Your task to perform on an android device: Search for sushi restaurants on Maps Image 0: 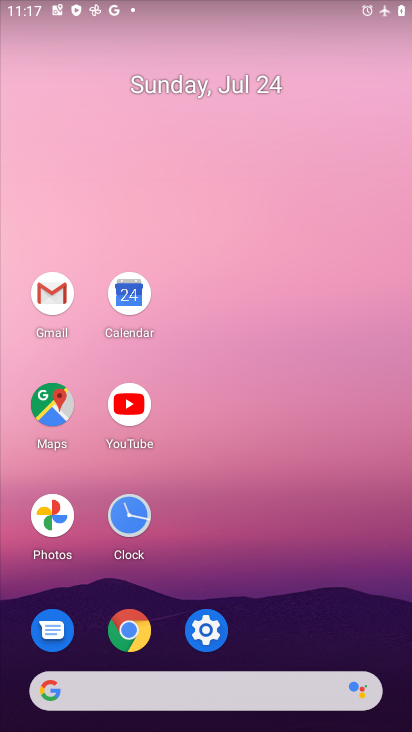
Step 0: click (51, 402)
Your task to perform on an android device: Search for sushi restaurants on Maps Image 1: 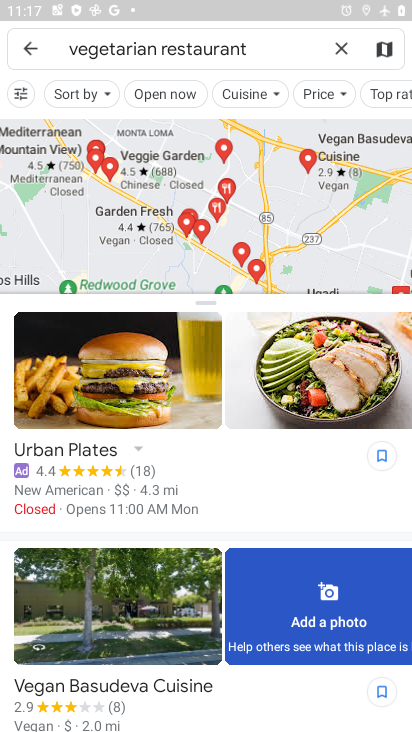
Step 1: click (339, 43)
Your task to perform on an android device: Search for sushi restaurants on Maps Image 2: 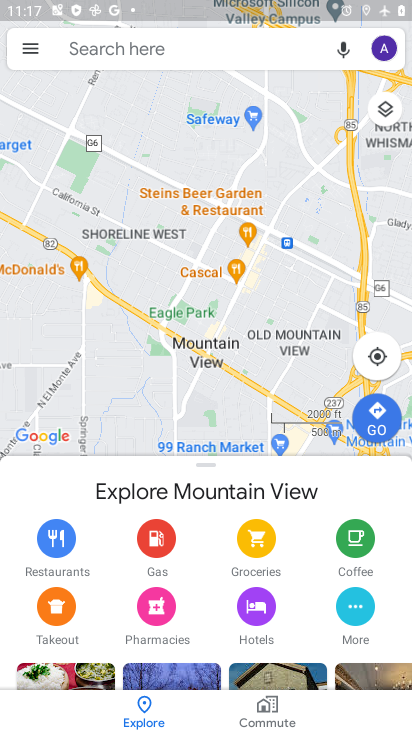
Step 2: click (194, 47)
Your task to perform on an android device: Search for sushi restaurants on Maps Image 3: 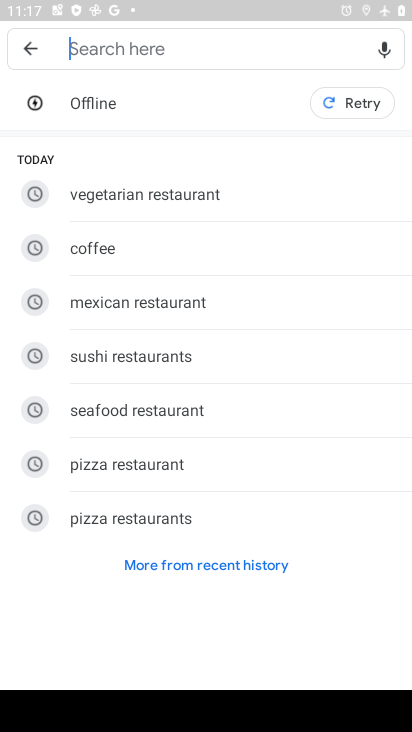
Step 3: click (147, 358)
Your task to perform on an android device: Search for sushi restaurants on Maps Image 4: 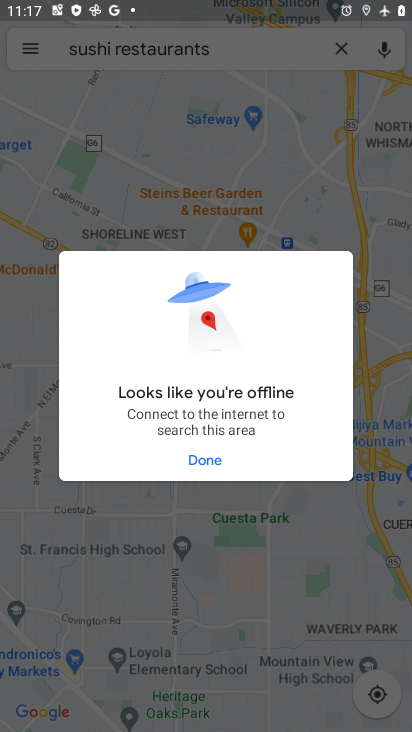
Step 4: click (208, 460)
Your task to perform on an android device: Search for sushi restaurants on Maps Image 5: 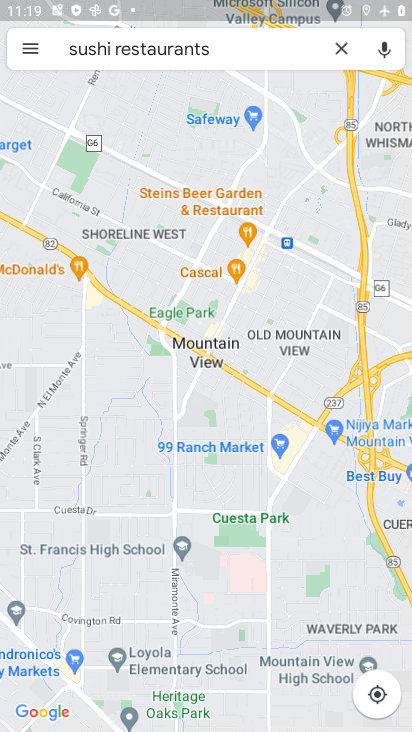
Step 5: task complete